Your task to perform on an android device: When is my next meeting? Image 0: 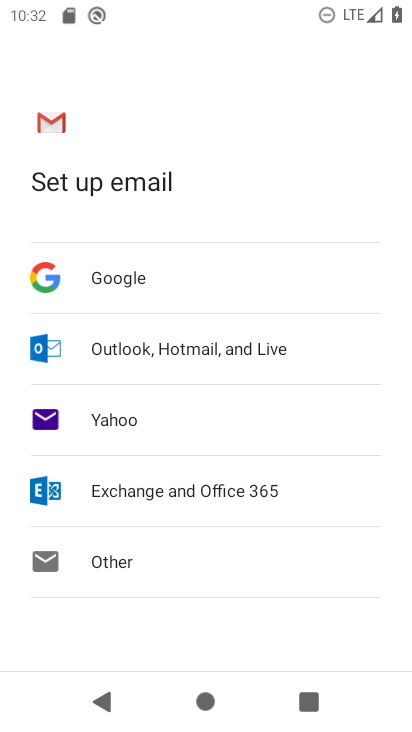
Step 0: press home button
Your task to perform on an android device: When is my next meeting? Image 1: 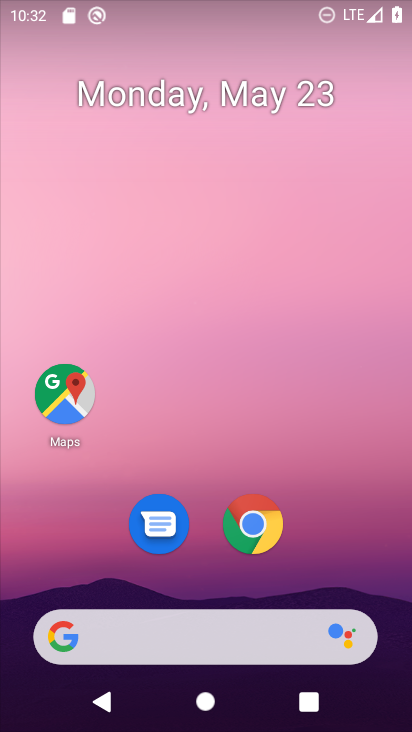
Step 1: drag from (248, 439) to (269, 26)
Your task to perform on an android device: When is my next meeting? Image 2: 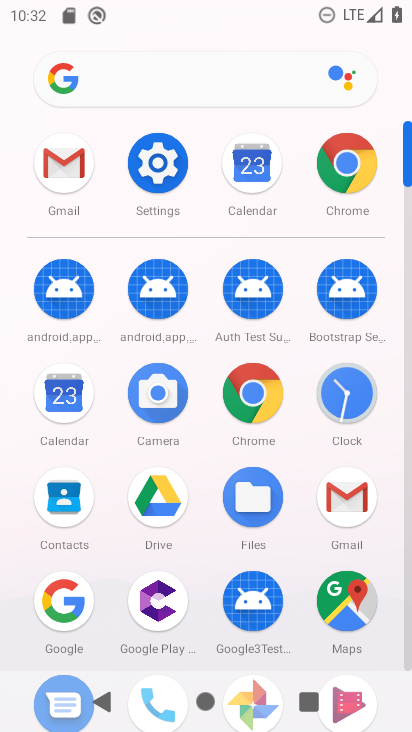
Step 2: click (241, 155)
Your task to perform on an android device: When is my next meeting? Image 3: 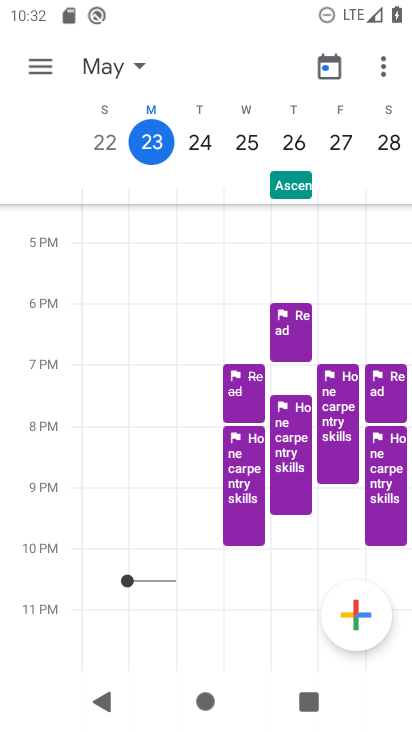
Step 3: click (143, 136)
Your task to perform on an android device: When is my next meeting? Image 4: 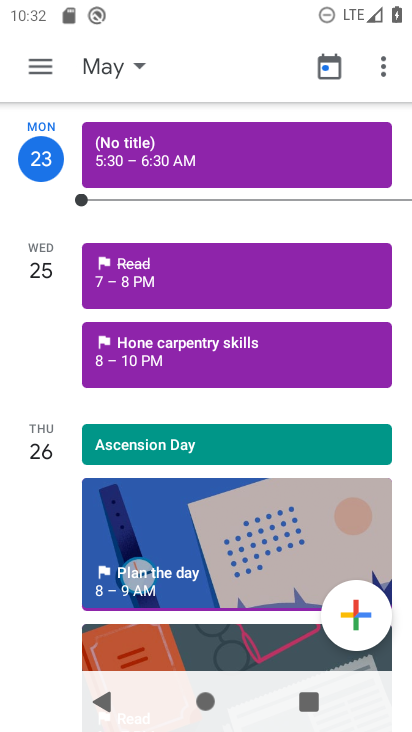
Step 4: task complete